Your task to perform on an android device: Go to Amazon Image 0: 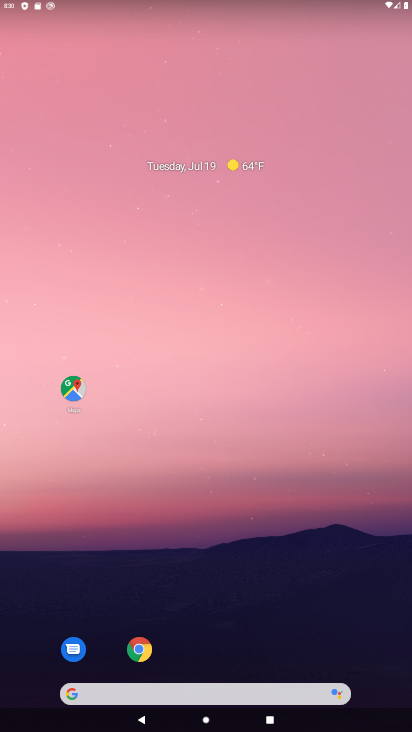
Step 0: click (149, 650)
Your task to perform on an android device: Go to Amazon Image 1: 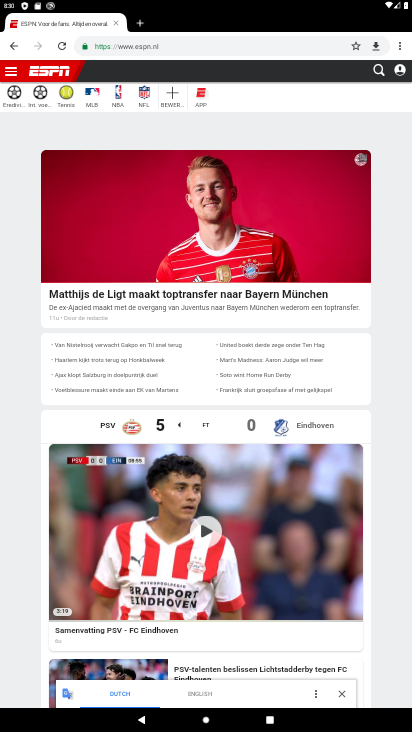
Step 1: click (135, 20)
Your task to perform on an android device: Go to Amazon Image 2: 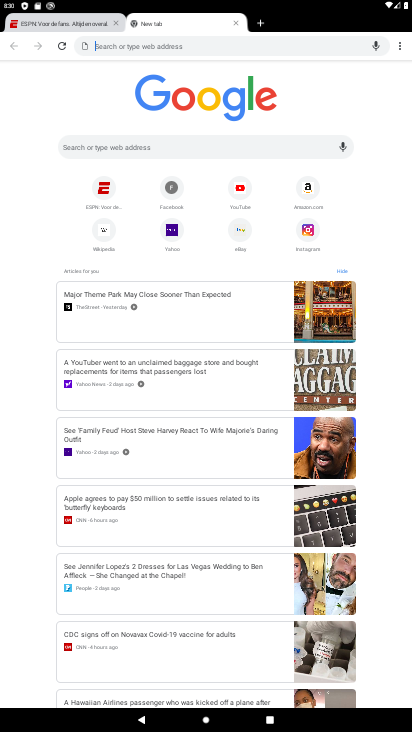
Step 2: click (310, 183)
Your task to perform on an android device: Go to Amazon Image 3: 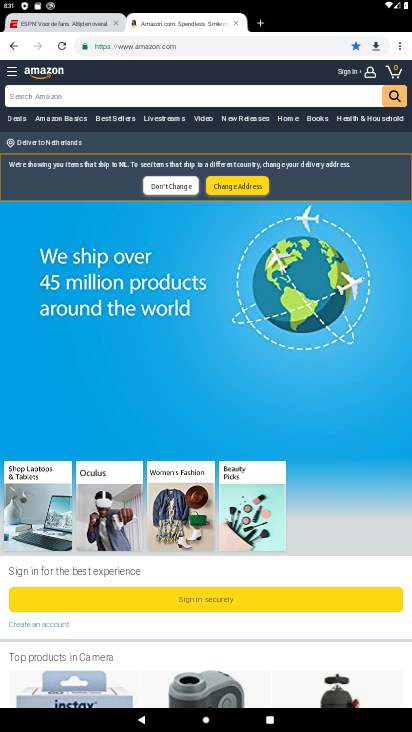
Step 3: task complete